Your task to perform on an android device: open app "Reddit" (install if not already installed) and go to login screen Image 0: 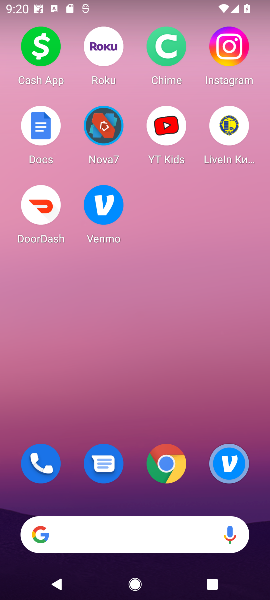
Step 0: drag from (138, 448) to (100, 0)
Your task to perform on an android device: open app "Reddit" (install if not already installed) and go to login screen Image 1: 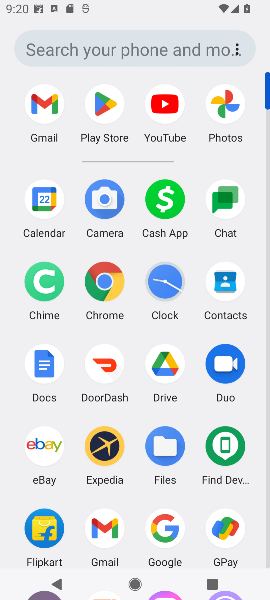
Step 1: click (102, 111)
Your task to perform on an android device: open app "Reddit" (install if not already installed) and go to login screen Image 2: 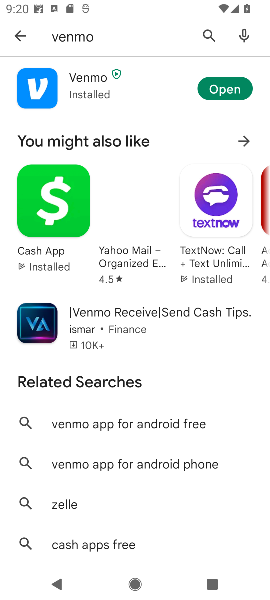
Step 2: click (24, 28)
Your task to perform on an android device: open app "Reddit" (install if not already installed) and go to login screen Image 3: 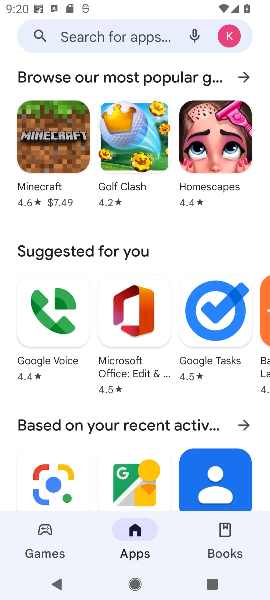
Step 3: click (99, 28)
Your task to perform on an android device: open app "Reddit" (install if not already installed) and go to login screen Image 4: 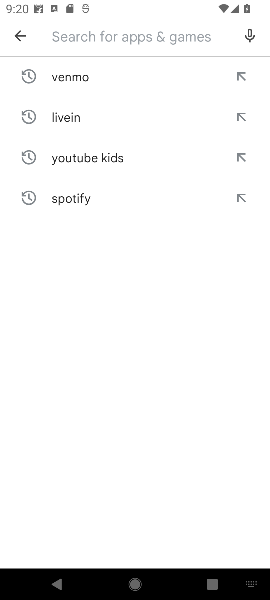
Step 4: click (99, 28)
Your task to perform on an android device: open app "Reddit" (install if not already installed) and go to login screen Image 5: 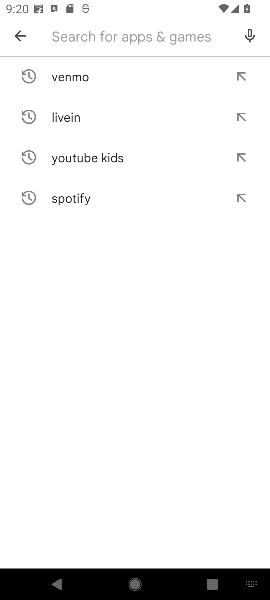
Step 5: type "Reddit"
Your task to perform on an android device: open app "Reddit" (install if not already installed) and go to login screen Image 6: 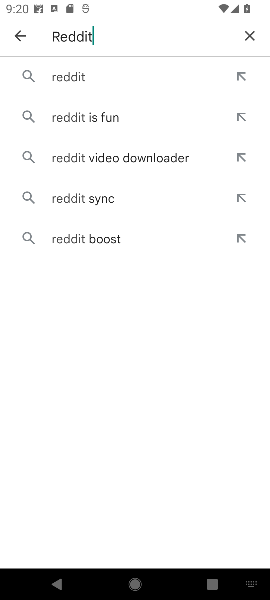
Step 6: click (82, 75)
Your task to perform on an android device: open app "Reddit" (install if not already installed) and go to login screen Image 7: 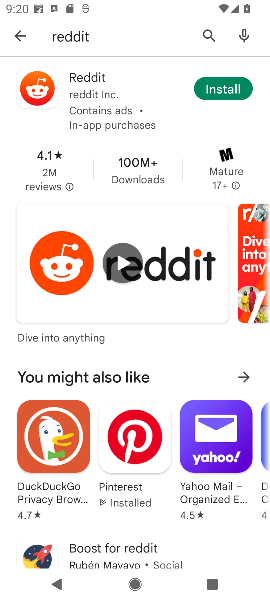
Step 7: click (212, 84)
Your task to perform on an android device: open app "Reddit" (install if not already installed) and go to login screen Image 8: 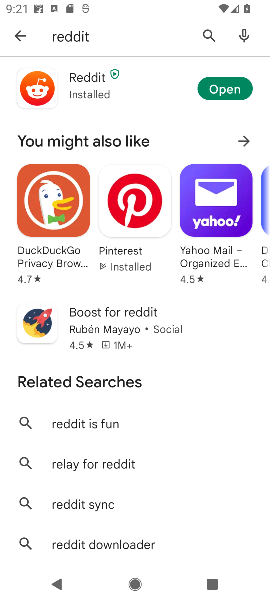
Step 8: click (212, 84)
Your task to perform on an android device: open app "Reddit" (install if not already installed) and go to login screen Image 9: 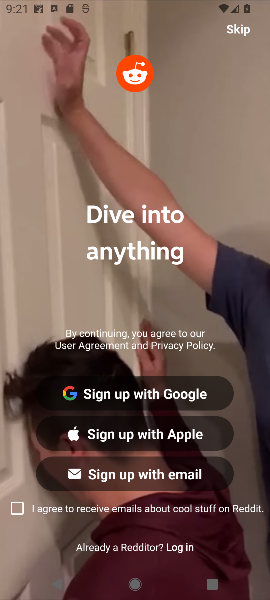
Step 9: task complete